Your task to perform on an android device: Go to internet settings Image 0: 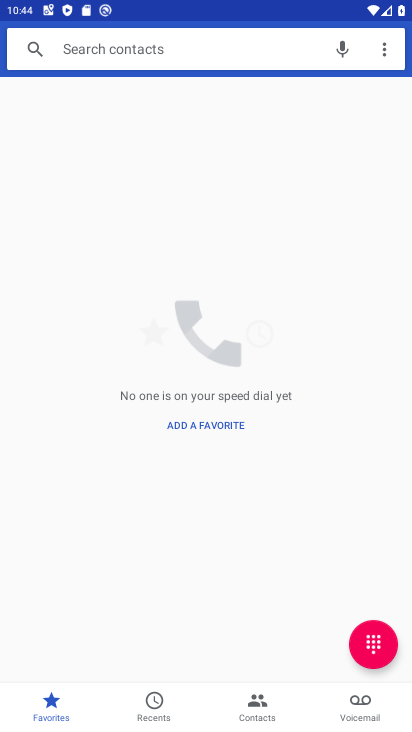
Step 0: press home button
Your task to perform on an android device: Go to internet settings Image 1: 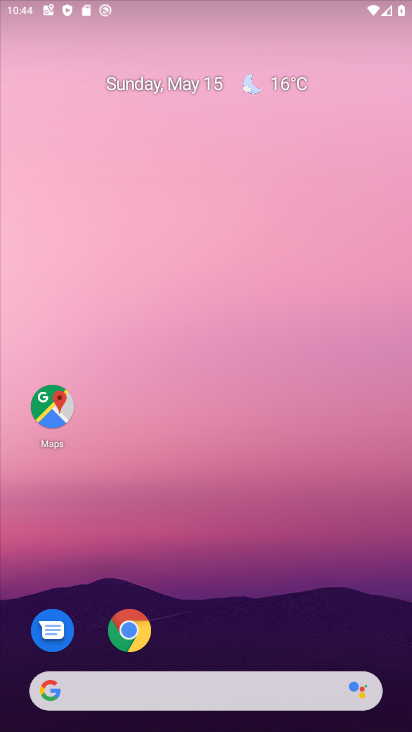
Step 1: drag from (225, 627) to (224, 147)
Your task to perform on an android device: Go to internet settings Image 2: 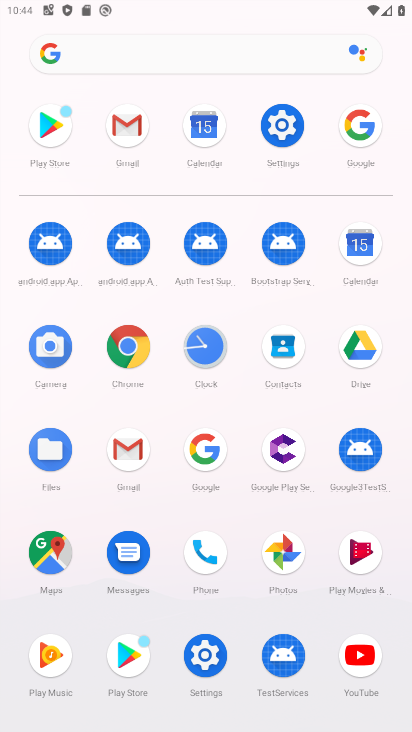
Step 2: click (285, 122)
Your task to perform on an android device: Go to internet settings Image 3: 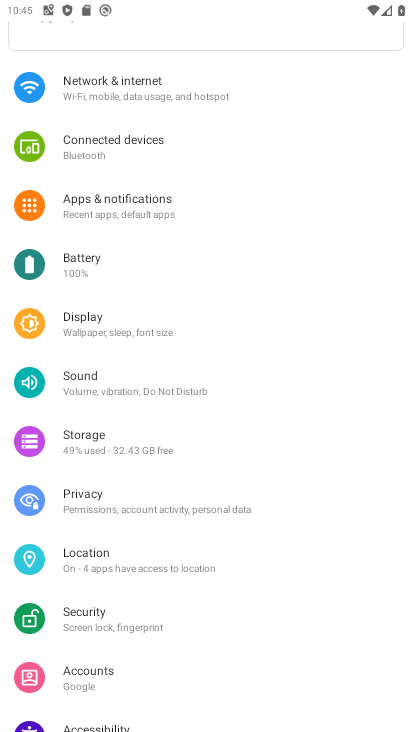
Step 3: click (127, 91)
Your task to perform on an android device: Go to internet settings Image 4: 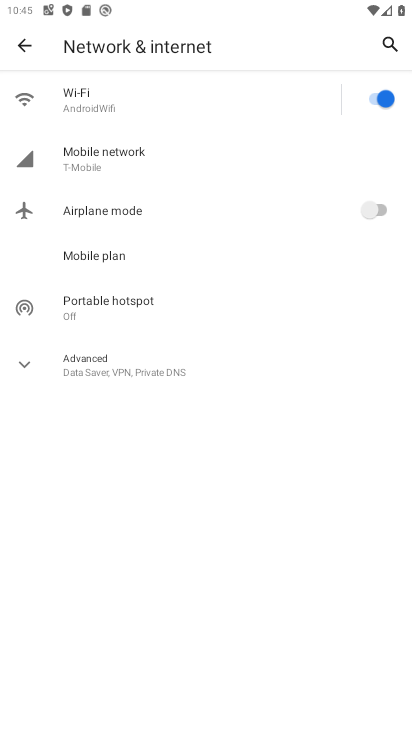
Step 4: click (124, 153)
Your task to perform on an android device: Go to internet settings Image 5: 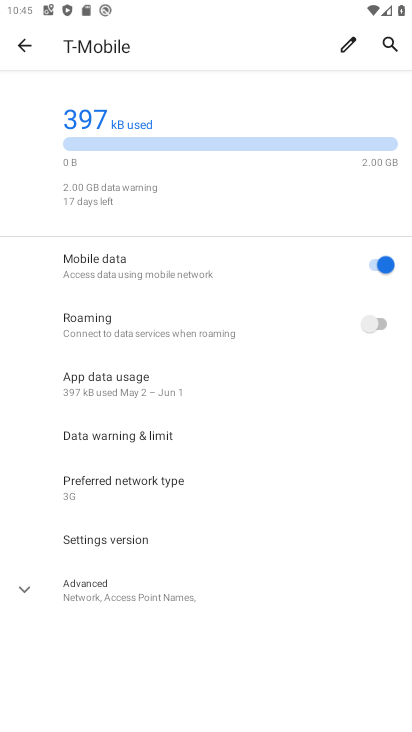
Step 5: task complete